Your task to perform on an android device: find which apps use the phone's location Image 0: 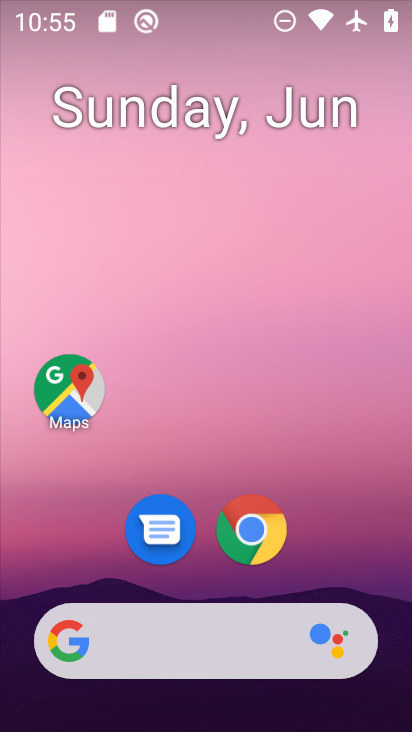
Step 0: drag from (387, 628) to (310, 179)
Your task to perform on an android device: find which apps use the phone's location Image 1: 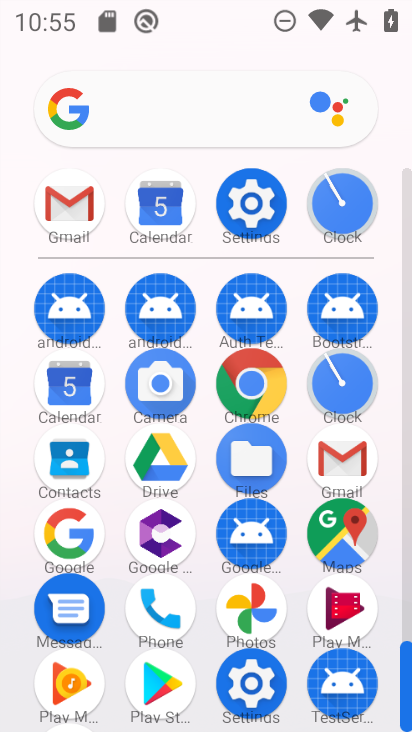
Step 1: click (252, 682)
Your task to perform on an android device: find which apps use the phone's location Image 2: 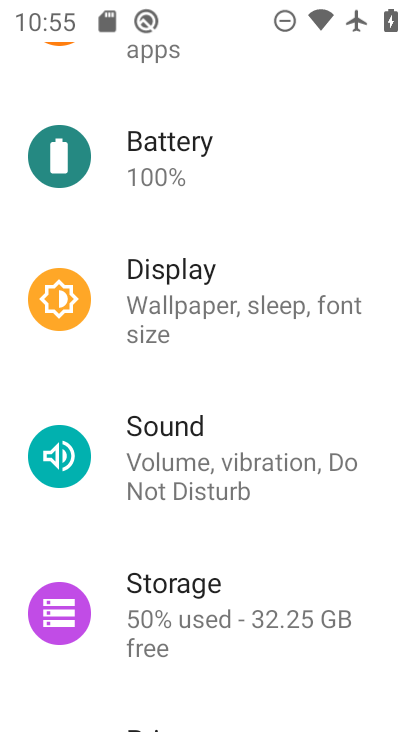
Step 2: drag from (354, 613) to (335, 178)
Your task to perform on an android device: find which apps use the phone's location Image 3: 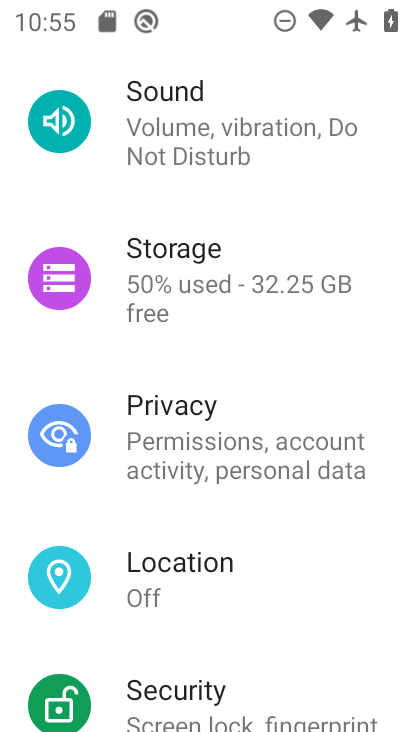
Step 3: click (164, 573)
Your task to perform on an android device: find which apps use the phone's location Image 4: 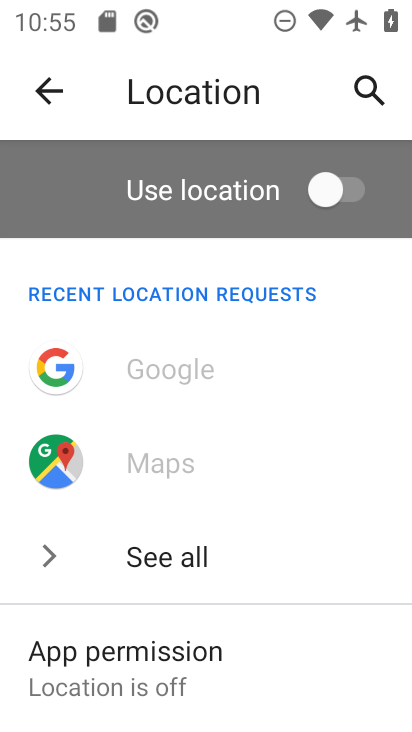
Step 4: drag from (293, 654) to (274, 216)
Your task to perform on an android device: find which apps use the phone's location Image 5: 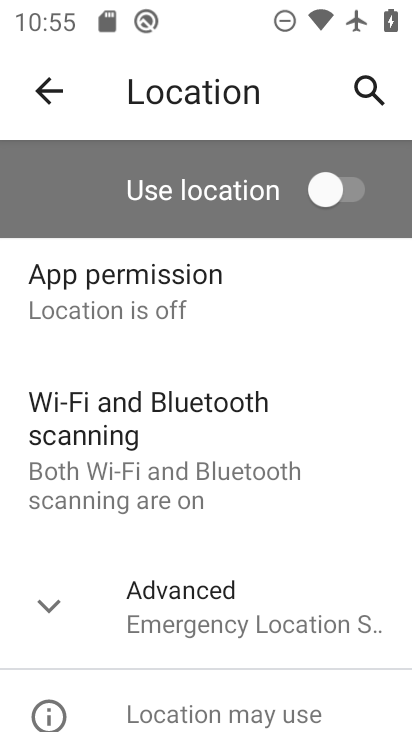
Step 5: drag from (278, 572) to (277, 634)
Your task to perform on an android device: find which apps use the phone's location Image 6: 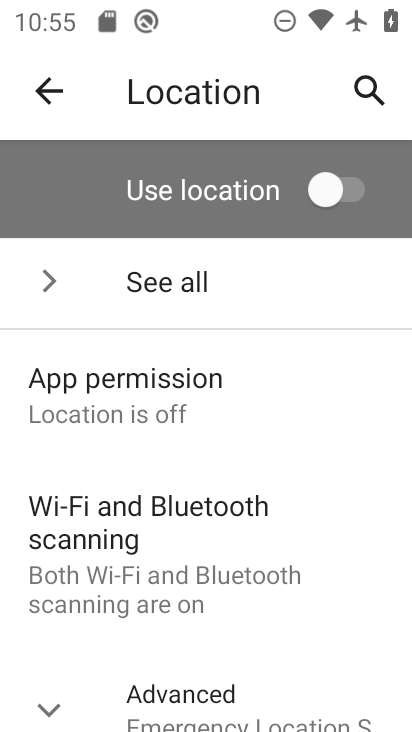
Step 6: click (86, 373)
Your task to perform on an android device: find which apps use the phone's location Image 7: 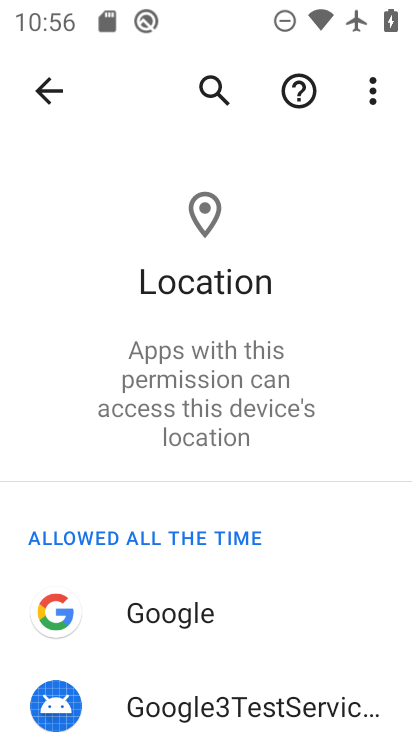
Step 7: drag from (260, 356) to (249, 169)
Your task to perform on an android device: find which apps use the phone's location Image 8: 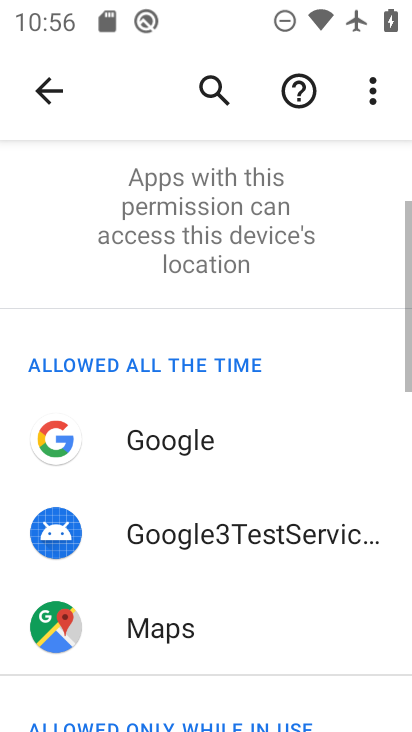
Step 8: drag from (286, 584) to (255, 337)
Your task to perform on an android device: find which apps use the phone's location Image 9: 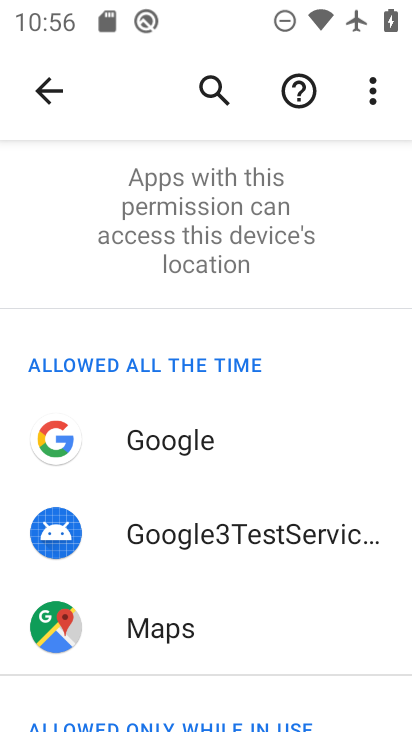
Step 9: drag from (267, 647) to (235, 155)
Your task to perform on an android device: find which apps use the phone's location Image 10: 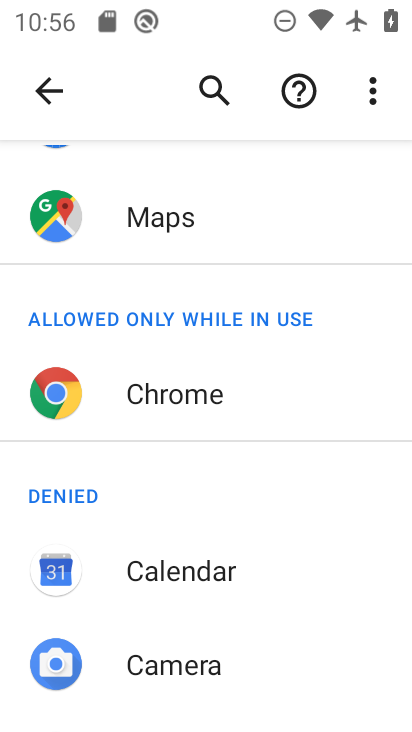
Step 10: drag from (256, 645) to (242, 144)
Your task to perform on an android device: find which apps use the phone's location Image 11: 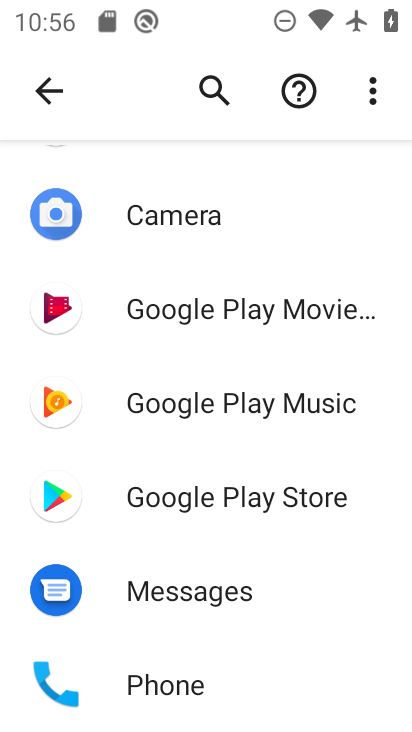
Step 11: drag from (237, 616) to (253, 218)
Your task to perform on an android device: find which apps use the phone's location Image 12: 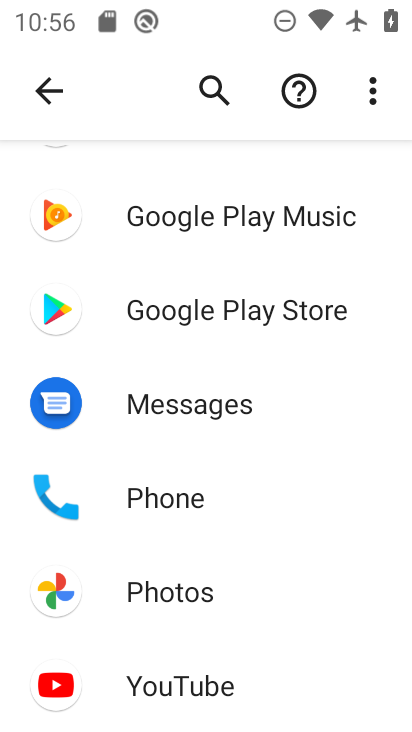
Step 12: click (179, 585)
Your task to perform on an android device: find which apps use the phone's location Image 13: 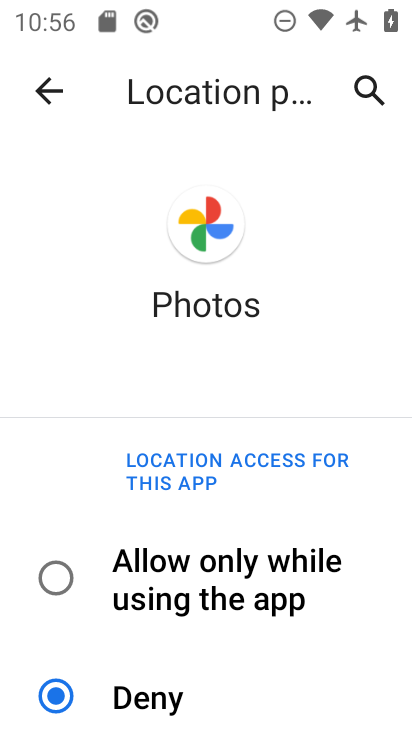
Step 13: task complete